Your task to perform on an android device: When is my next appointment? Image 0: 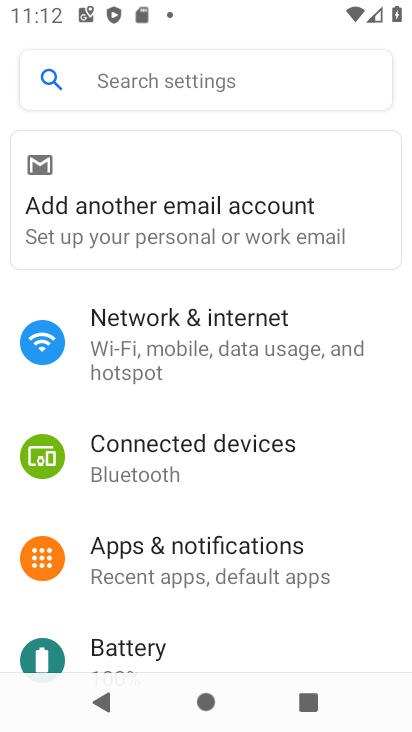
Step 0: press home button
Your task to perform on an android device: When is my next appointment? Image 1: 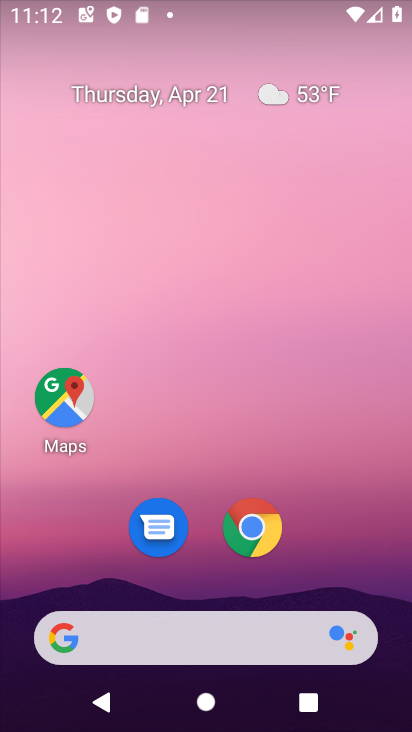
Step 1: drag from (369, 558) to (358, 201)
Your task to perform on an android device: When is my next appointment? Image 2: 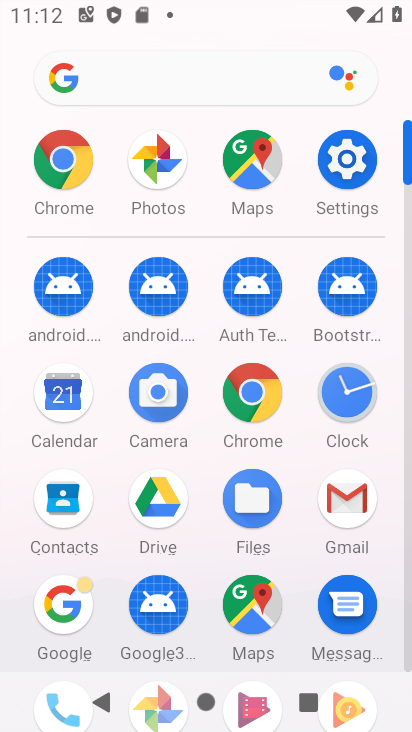
Step 2: click (75, 388)
Your task to perform on an android device: When is my next appointment? Image 3: 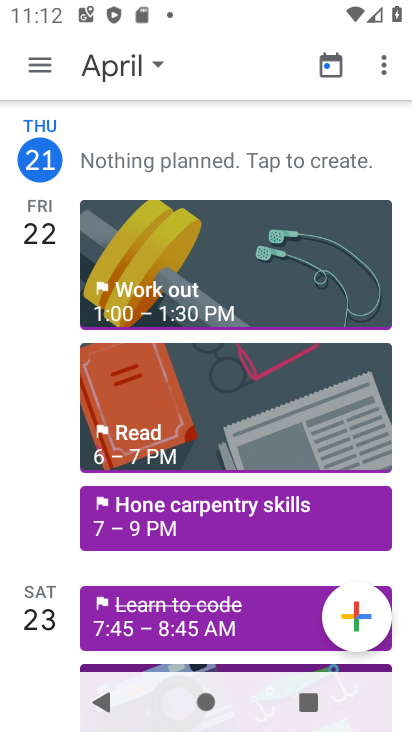
Step 3: click (223, 414)
Your task to perform on an android device: When is my next appointment? Image 4: 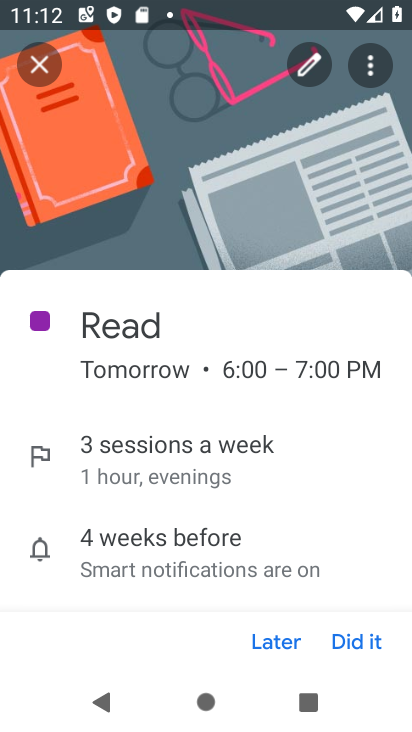
Step 4: task complete